Your task to perform on an android device: Open Google Chrome Image 0: 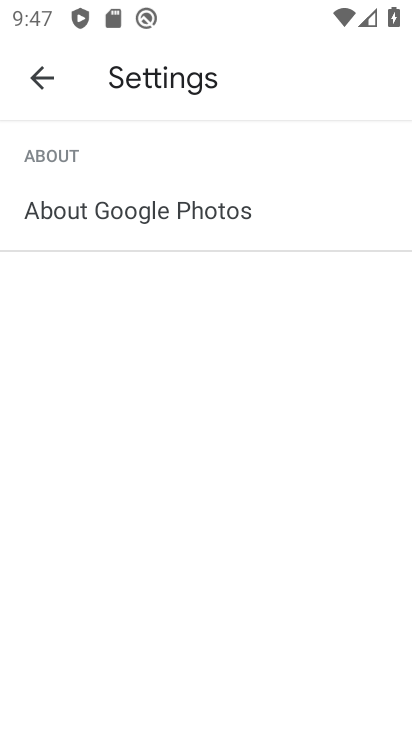
Step 0: press home button
Your task to perform on an android device: Open Google Chrome Image 1: 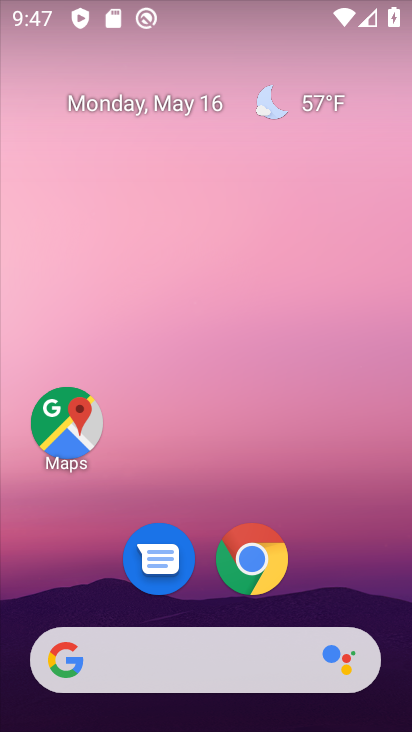
Step 1: click (256, 560)
Your task to perform on an android device: Open Google Chrome Image 2: 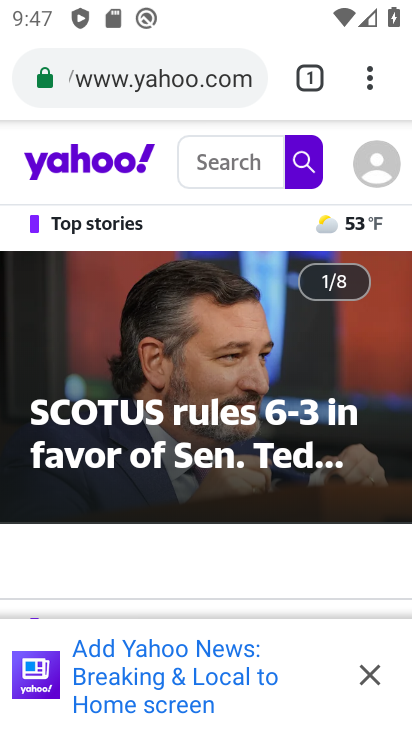
Step 2: task complete